Your task to perform on an android device: toggle wifi Image 0: 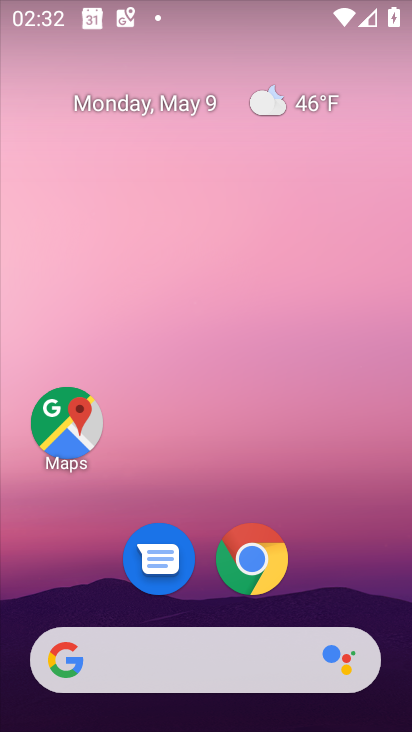
Step 0: drag from (190, 462) to (202, 53)
Your task to perform on an android device: toggle wifi Image 1: 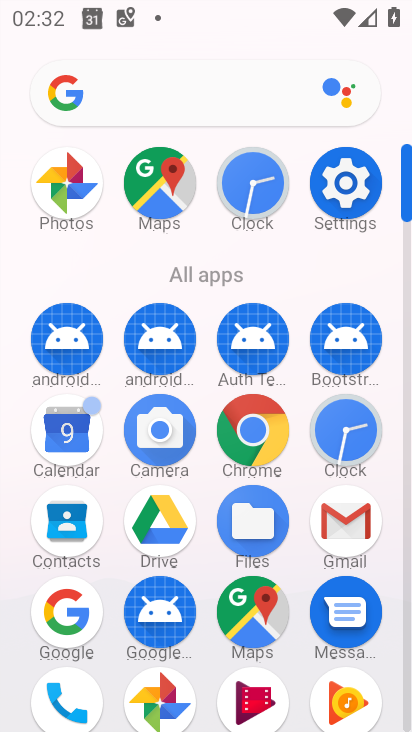
Step 1: click (343, 179)
Your task to perform on an android device: toggle wifi Image 2: 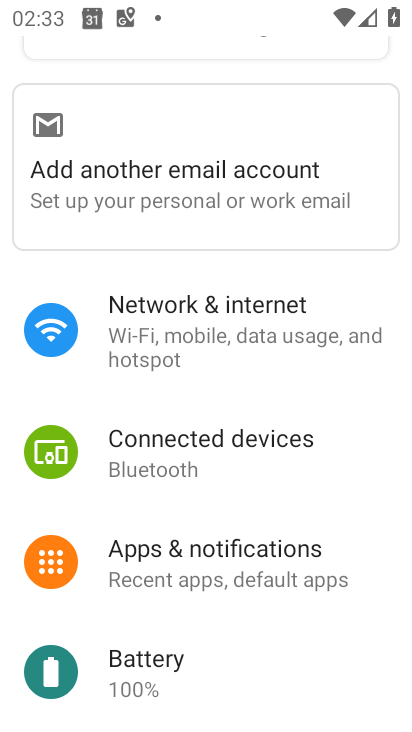
Step 2: click (191, 310)
Your task to perform on an android device: toggle wifi Image 3: 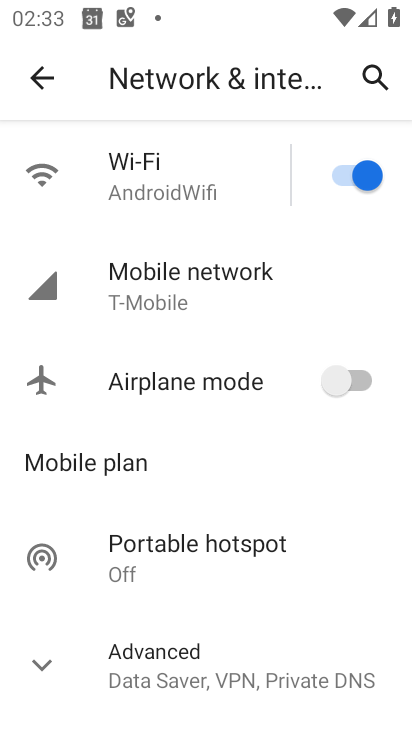
Step 3: click (369, 179)
Your task to perform on an android device: toggle wifi Image 4: 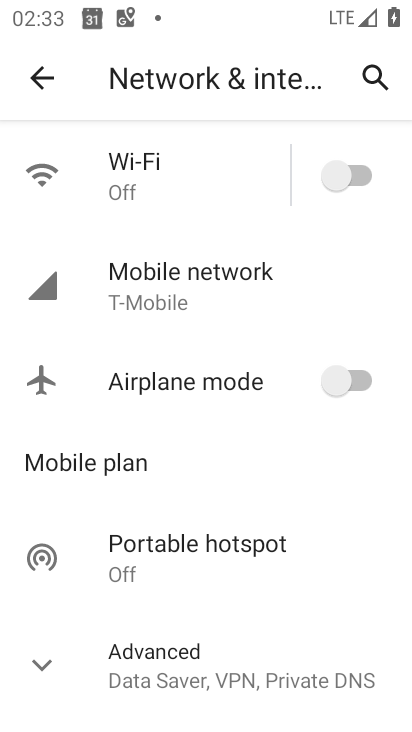
Step 4: task complete